Your task to perform on an android device: turn vacation reply on in the gmail app Image 0: 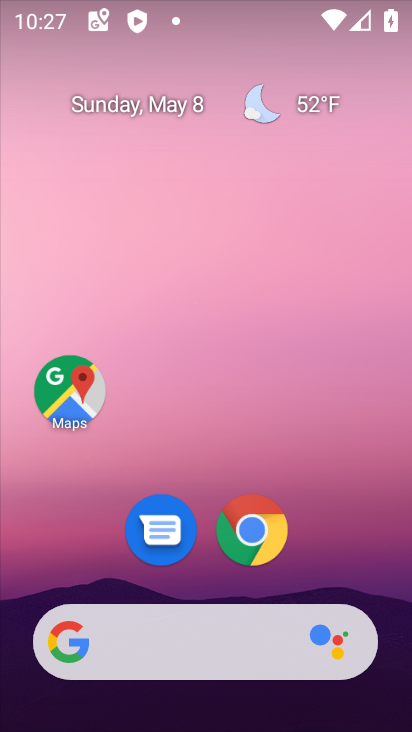
Step 0: drag from (357, 554) to (362, 120)
Your task to perform on an android device: turn vacation reply on in the gmail app Image 1: 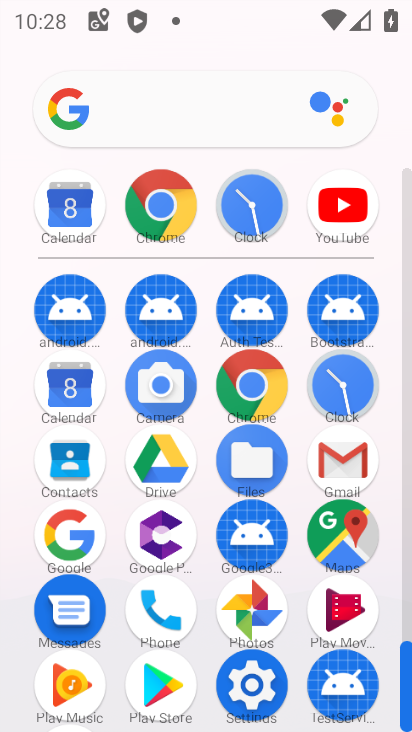
Step 1: click (334, 464)
Your task to perform on an android device: turn vacation reply on in the gmail app Image 2: 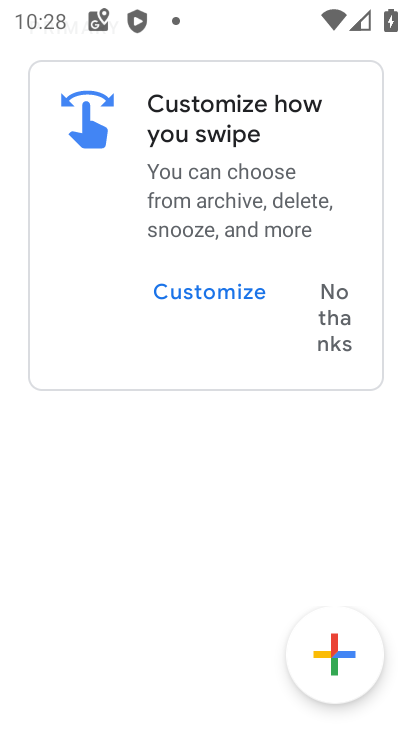
Step 2: press back button
Your task to perform on an android device: turn vacation reply on in the gmail app Image 3: 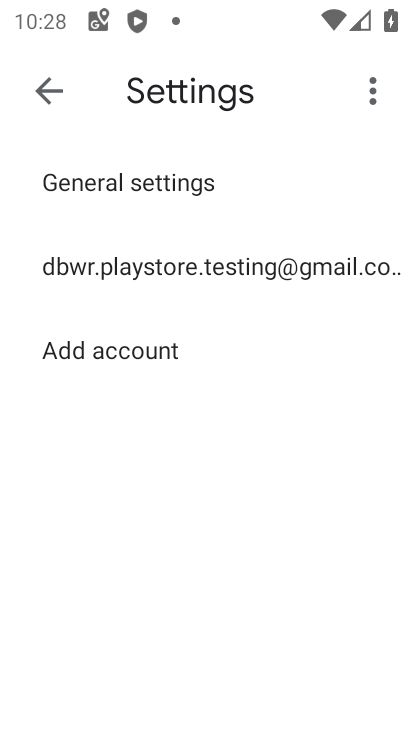
Step 3: click (170, 254)
Your task to perform on an android device: turn vacation reply on in the gmail app Image 4: 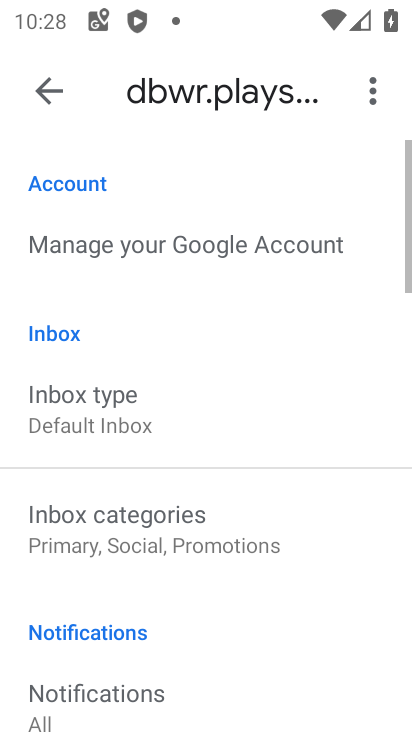
Step 4: drag from (186, 651) to (204, 277)
Your task to perform on an android device: turn vacation reply on in the gmail app Image 5: 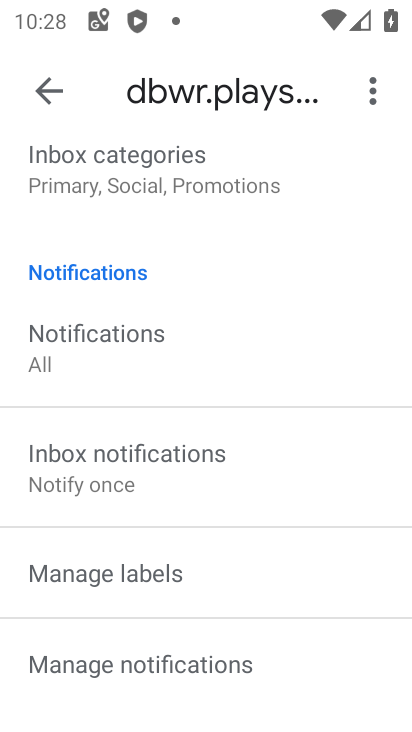
Step 5: drag from (237, 590) to (252, 175)
Your task to perform on an android device: turn vacation reply on in the gmail app Image 6: 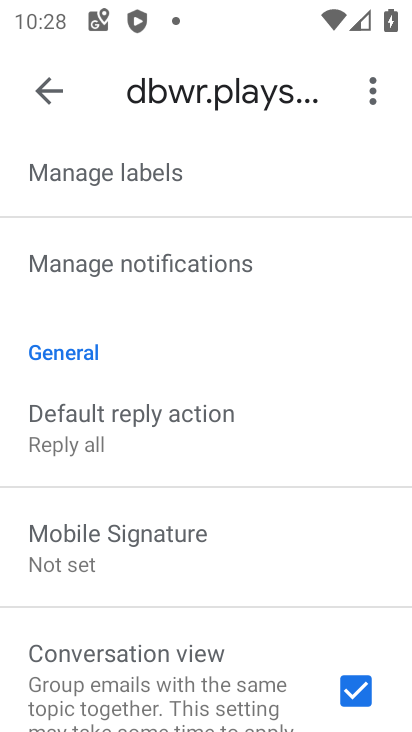
Step 6: drag from (200, 650) to (262, 331)
Your task to perform on an android device: turn vacation reply on in the gmail app Image 7: 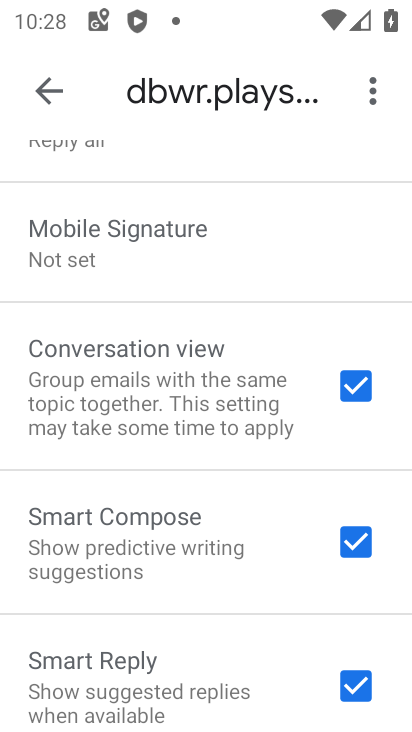
Step 7: drag from (217, 670) to (232, 260)
Your task to perform on an android device: turn vacation reply on in the gmail app Image 8: 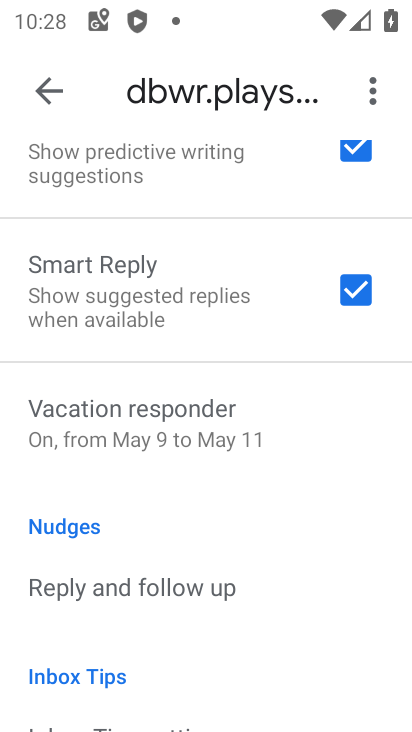
Step 8: click (181, 445)
Your task to perform on an android device: turn vacation reply on in the gmail app Image 9: 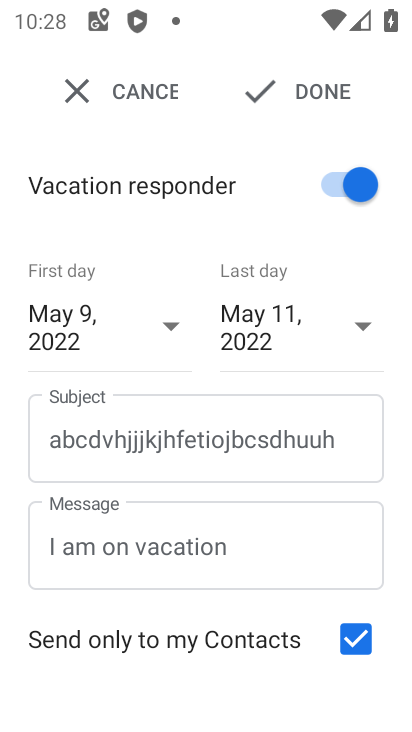
Step 9: task complete